Your task to perform on an android device: Show me productivity apps on the Play Store Image 0: 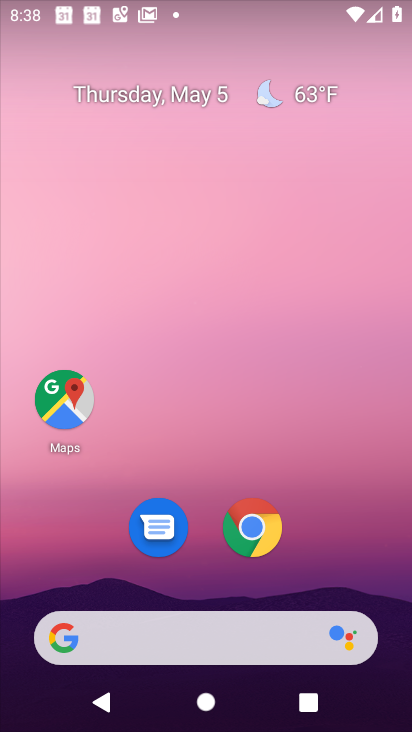
Step 0: drag from (267, 678) to (287, 33)
Your task to perform on an android device: Show me productivity apps on the Play Store Image 1: 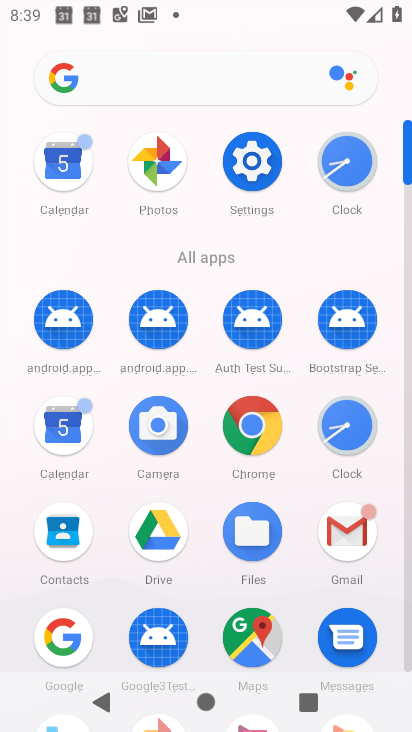
Step 1: drag from (225, 569) to (186, 32)
Your task to perform on an android device: Show me productivity apps on the Play Store Image 2: 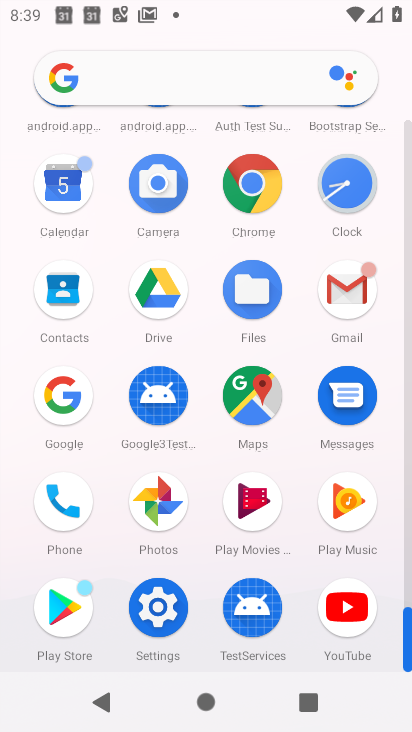
Step 2: click (69, 611)
Your task to perform on an android device: Show me productivity apps on the Play Store Image 3: 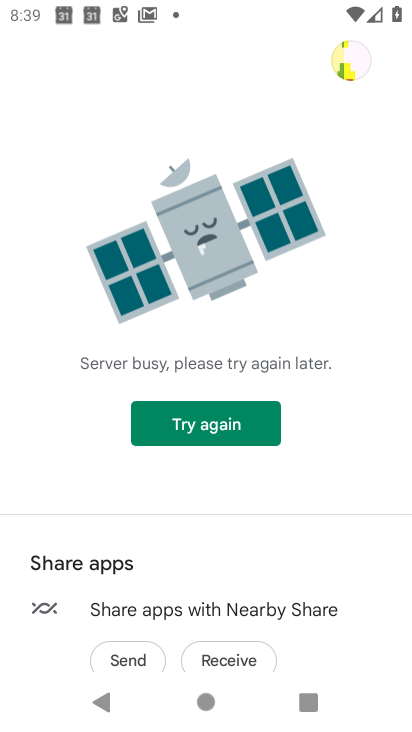
Step 3: click (226, 434)
Your task to perform on an android device: Show me productivity apps on the Play Store Image 4: 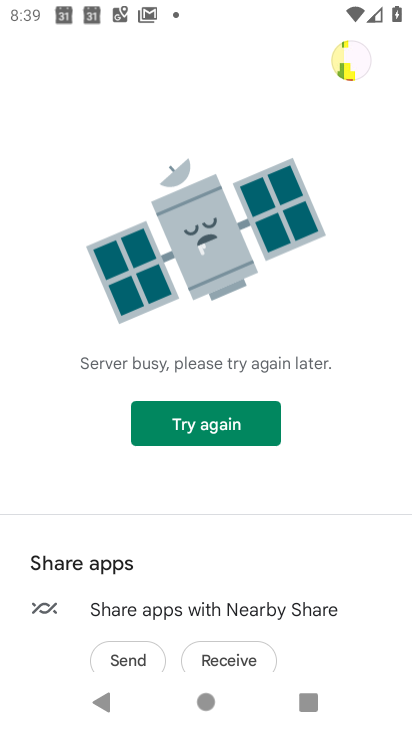
Step 4: click (227, 434)
Your task to perform on an android device: Show me productivity apps on the Play Store Image 5: 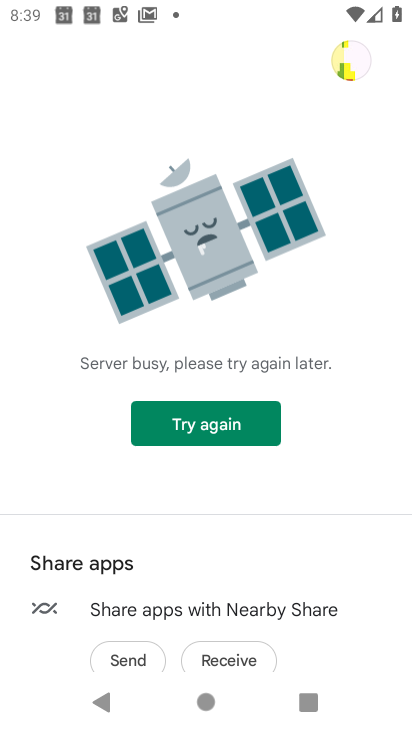
Step 5: task complete